Your task to perform on an android device: install app "Google Sheets" Image 0: 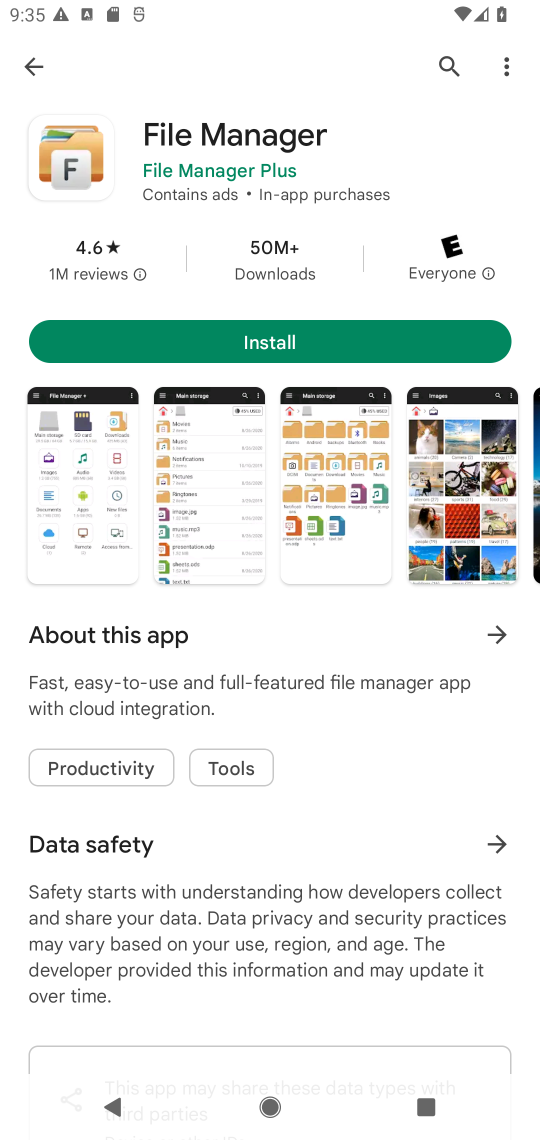
Step 0: press home button
Your task to perform on an android device: install app "Google Sheets" Image 1: 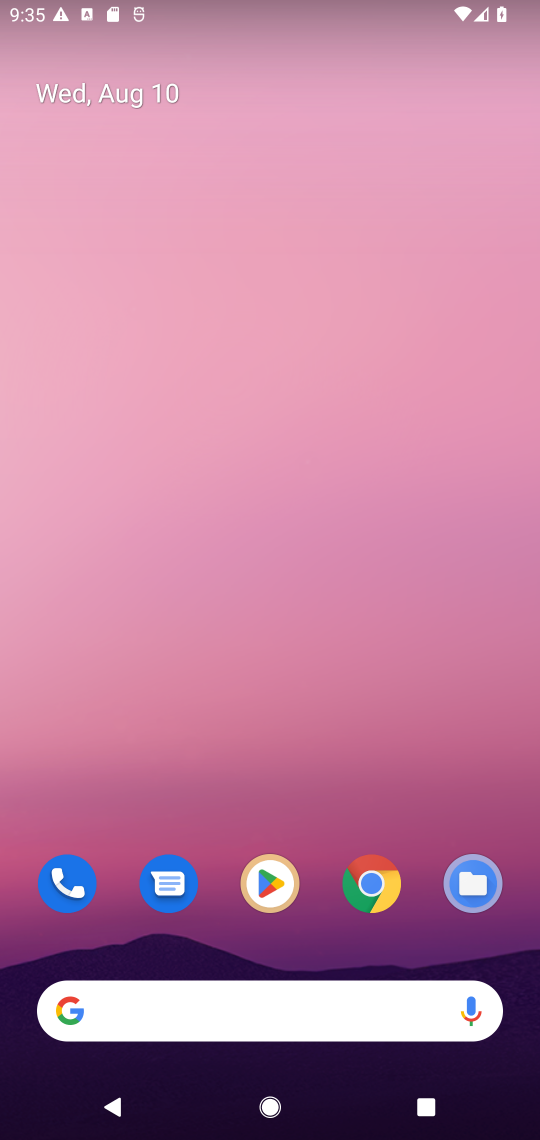
Step 1: drag from (314, 965) to (265, 197)
Your task to perform on an android device: install app "Google Sheets" Image 2: 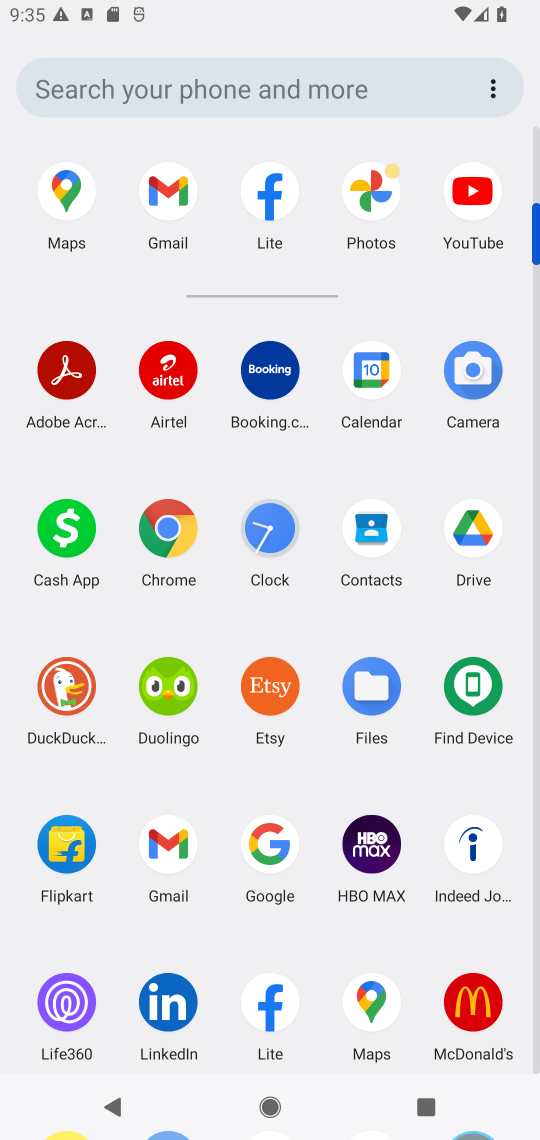
Step 2: drag from (361, 916) to (338, 290)
Your task to perform on an android device: install app "Google Sheets" Image 3: 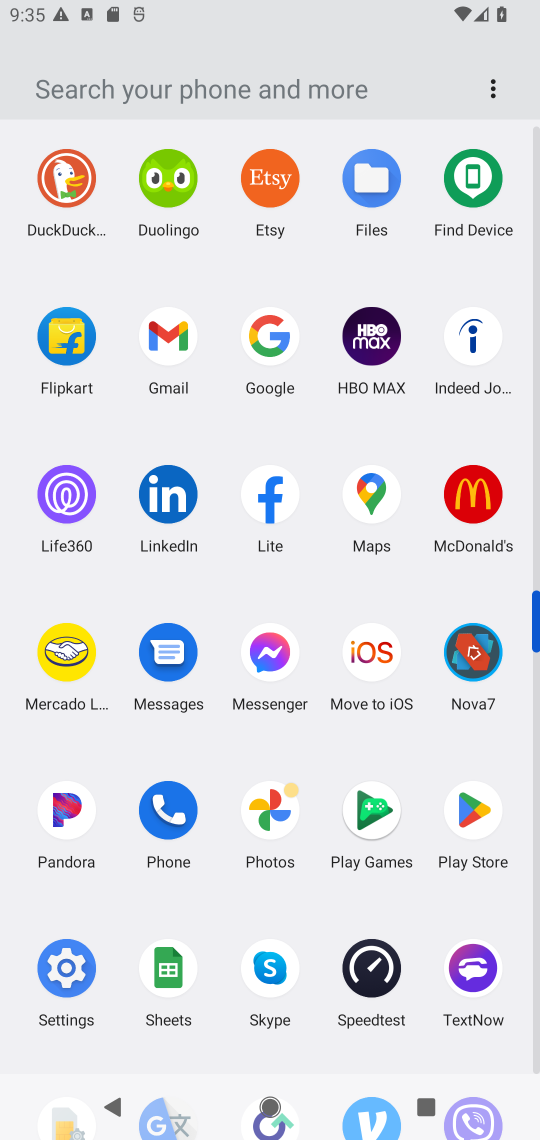
Step 3: click (471, 803)
Your task to perform on an android device: install app "Google Sheets" Image 4: 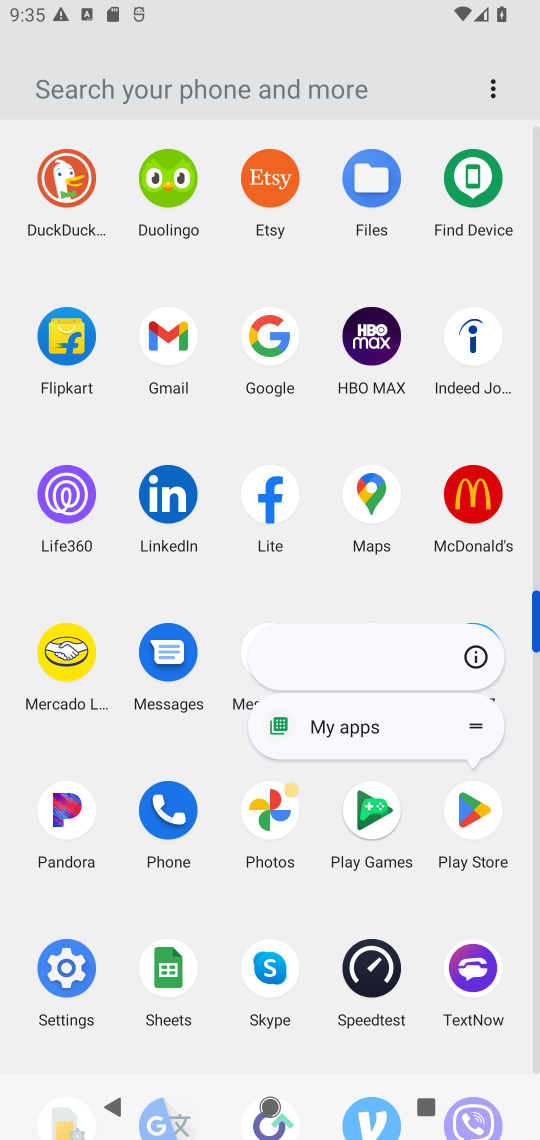
Step 4: click (474, 802)
Your task to perform on an android device: install app "Google Sheets" Image 5: 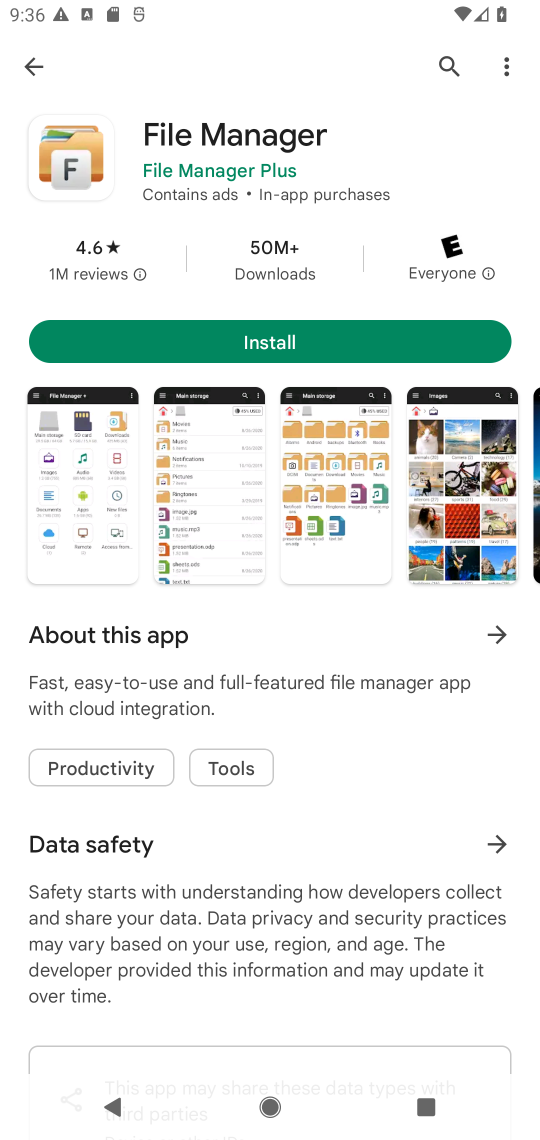
Step 5: click (449, 66)
Your task to perform on an android device: install app "Google Sheets" Image 6: 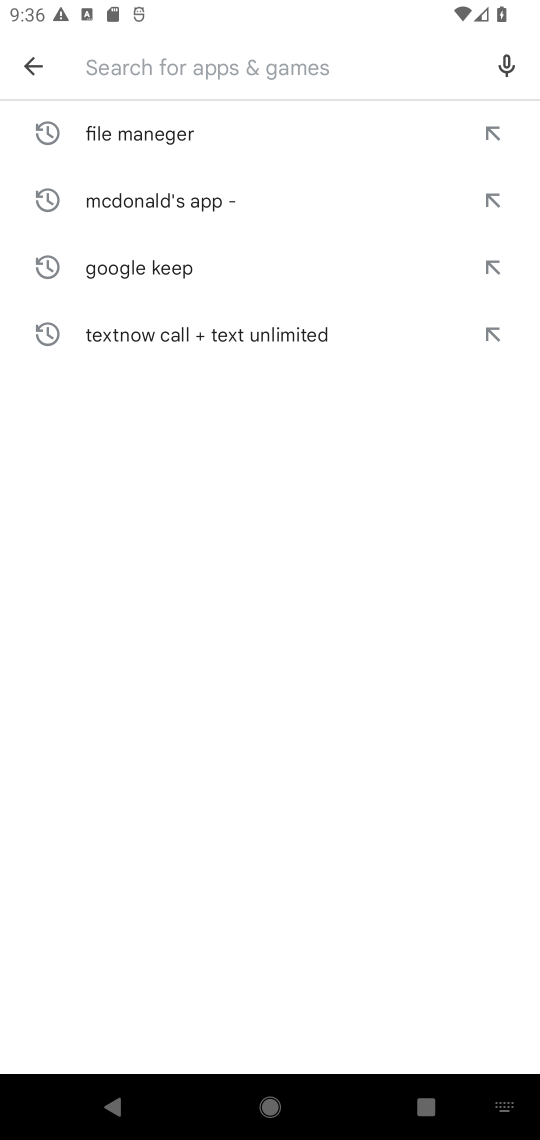
Step 6: type "Google Sheets"
Your task to perform on an android device: install app "Google Sheets" Image 7: 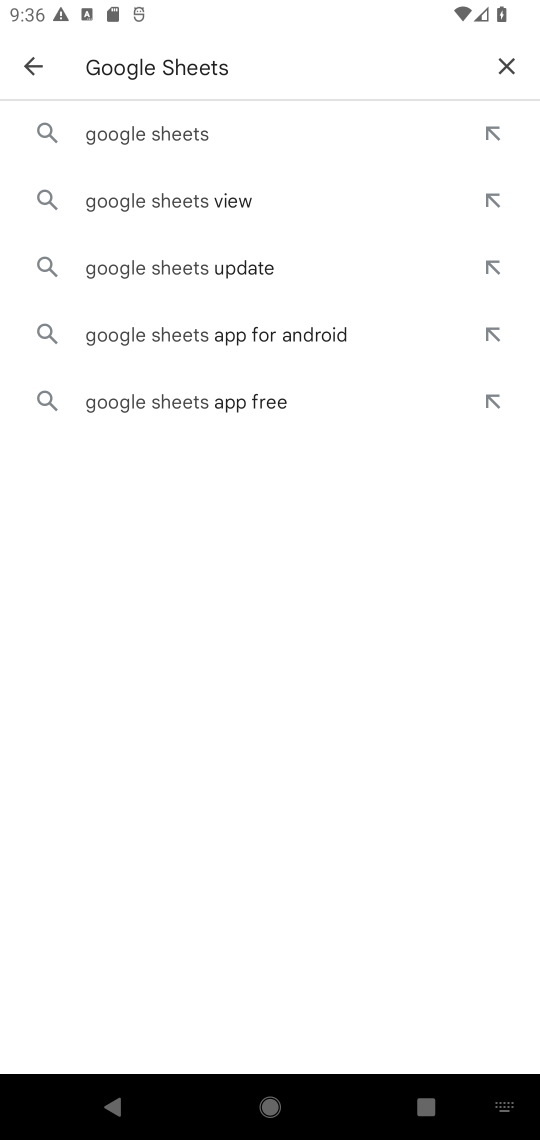
Step 7: click (158, 133)
Your task to perform on an android device: install app "Google Sheets" Image 8: 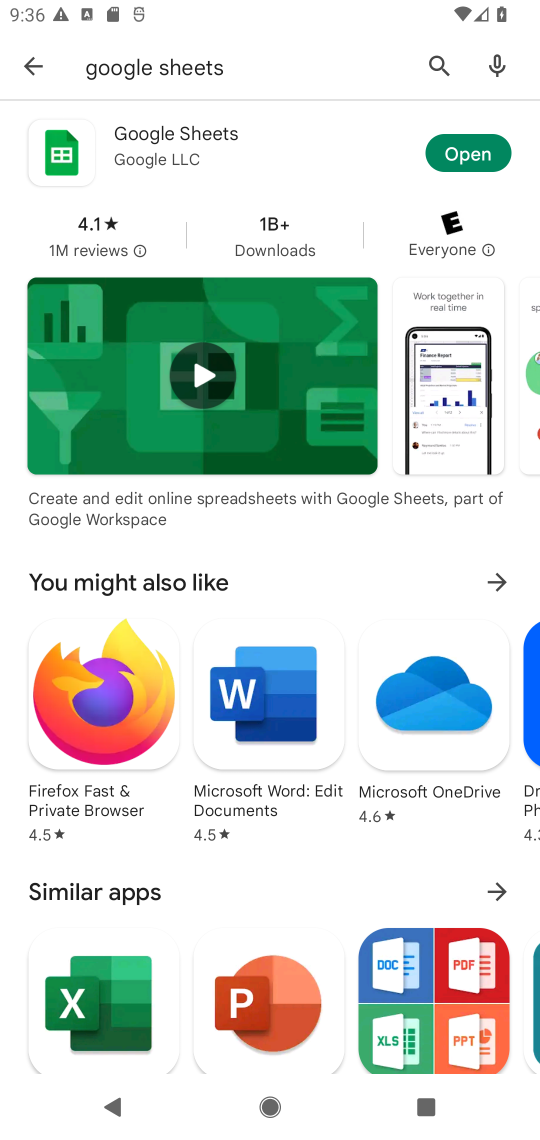
Step 8: click (172, 142)
Your task to perform on an android device: install app "Google Sheets" Image 9: 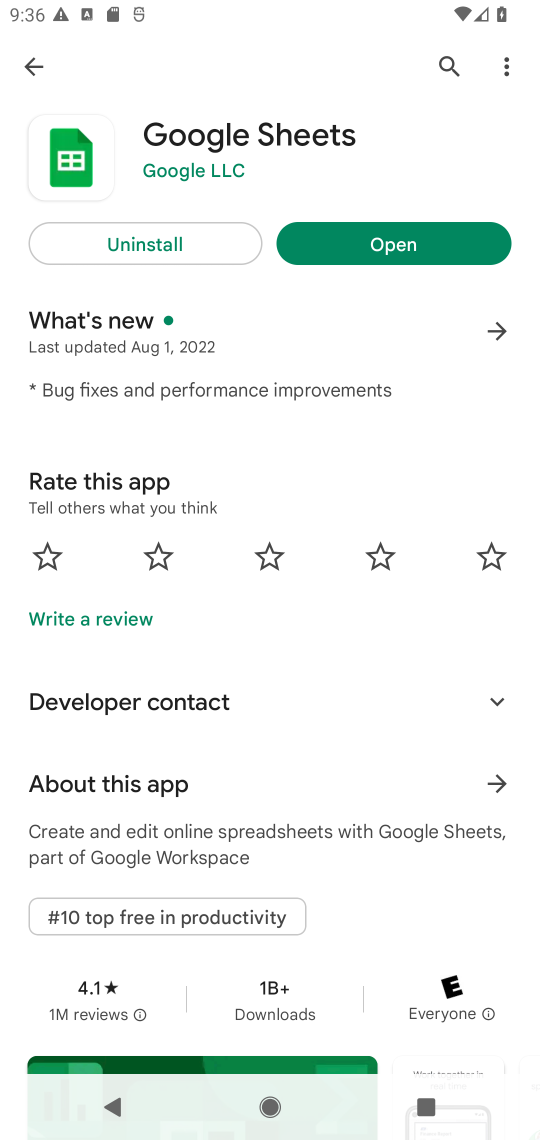
Step 9: task complete